Your task to perform on an android device: See recent photos Image 0: 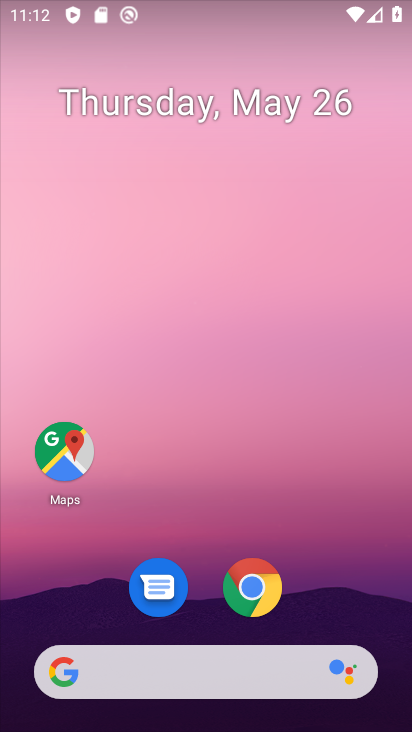
Step 0: drag from (264, 711) to (255, 89)
Your task to perform on an android device: See recent photos Image 1: 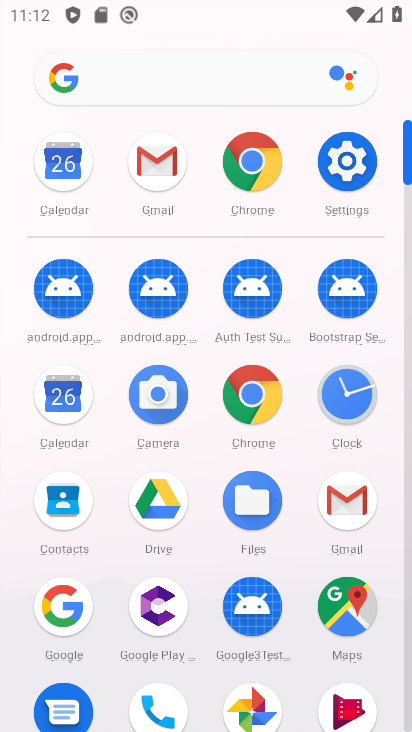
Step 1: drag from (186, 570) to (179, 437)
Your task to perform on an android device: See recent photos Image 2: 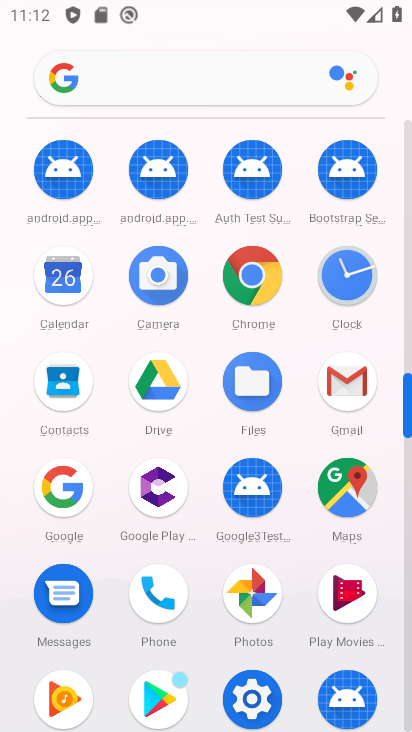
Step 2: click (250, 584)
Your task to perform on an android device: See recent photos Image 3: 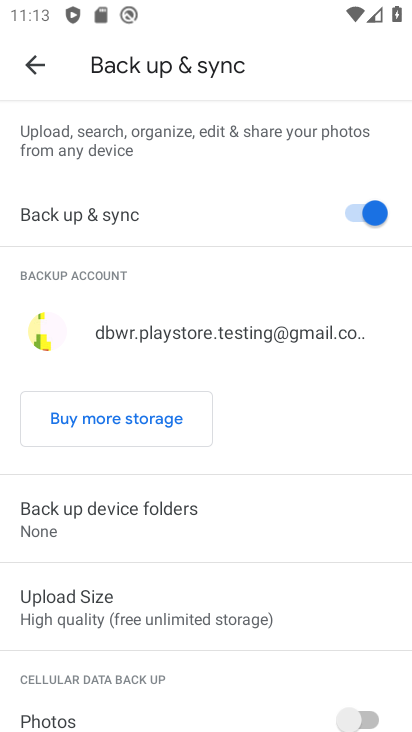
Step 3: click (29, 80)
Your task to perform on an android device: See recent photos Image 4: 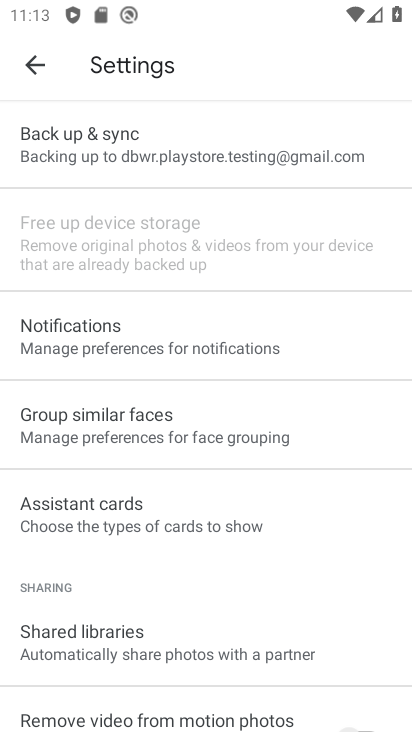
Step 4: click (24, 86)
Your task to perform on an android device: See recent photos Image 5: 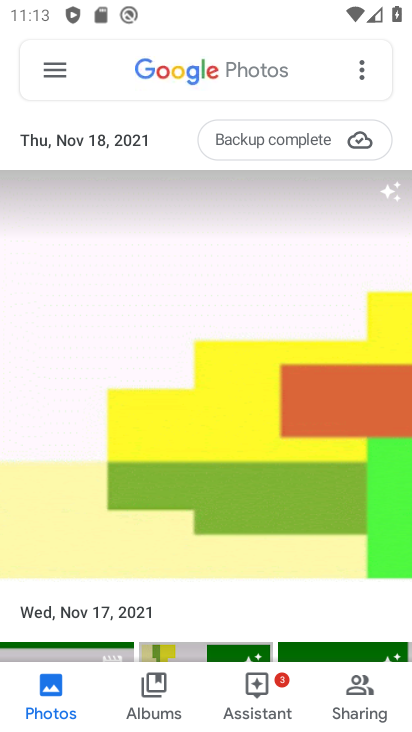
Step 5: task complete